Your task to perform on an android device: toggle airplane mode Image 0: 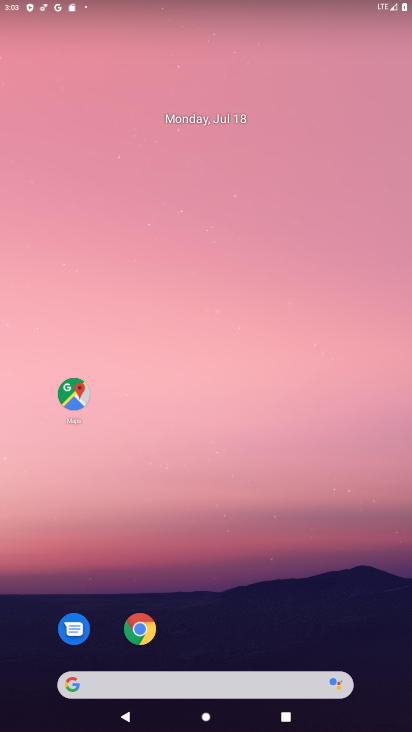
Step 0: drag from (196, 425) to (144, 124)
Your task to perform on an android device: toggle airplane mode Image 1: 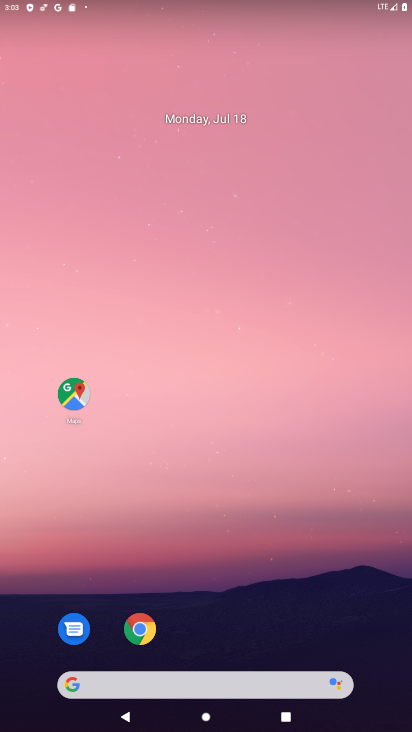
Step 1: drag from (186, 661) to (134, 1)
Your task to perform on an android device: toggle airplane mode Image 2: 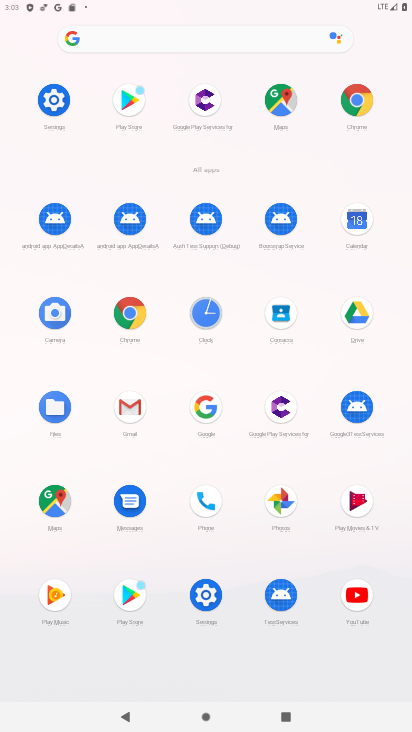
Step 2: click (61, 90)
Your task to perform on an android device: toggle airplane mode Image 3: 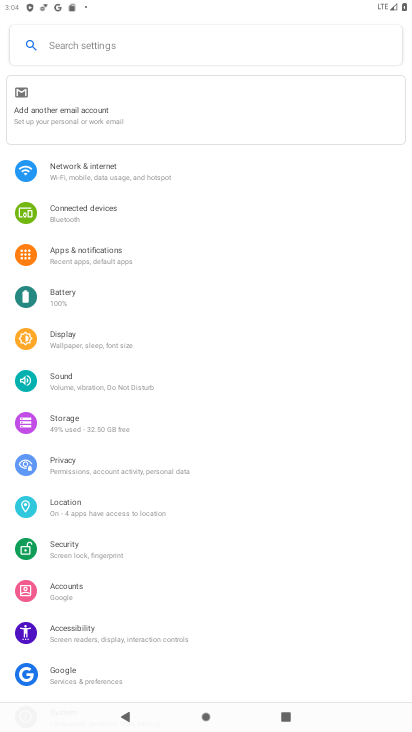
Step 3: click (85, 159)
Your task to perform on an android device: toggle airplane mode Image 4: 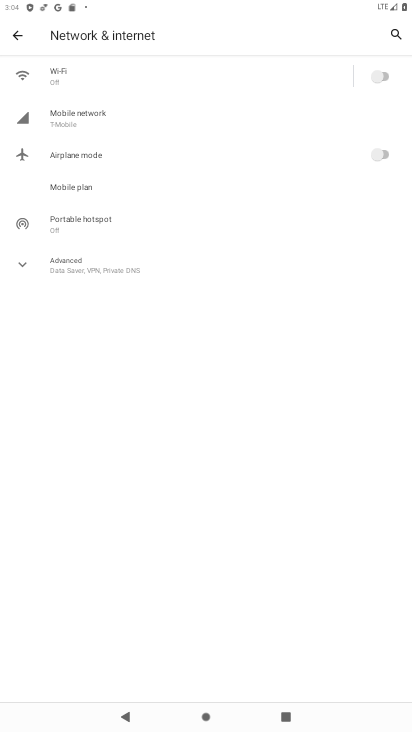
Step 4: click (388, 156)
Your task to perform on an android device: toggle airplane mode Image 5: 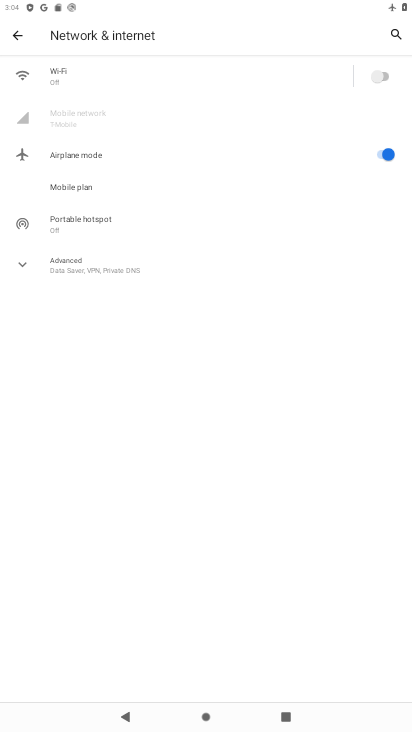
Step 5: task complete